Your task to perform on an android device: Open calendar and show me the second week of next month Image 0: 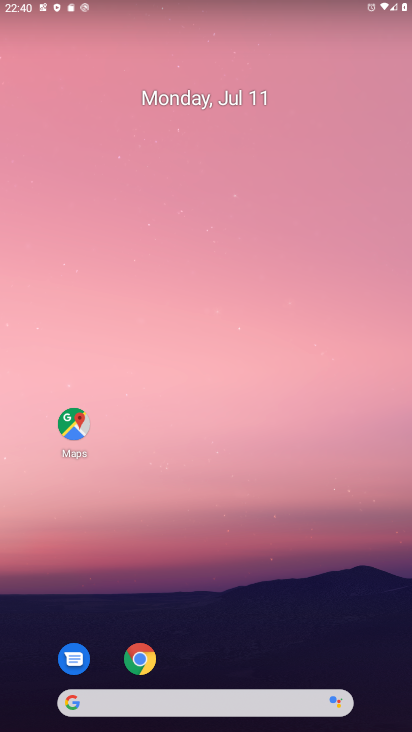
Step 0: drag from (204, 632) to (296, 189)
Your task to perform on an android device: Open calendar and show me the second week of next month Image 1: 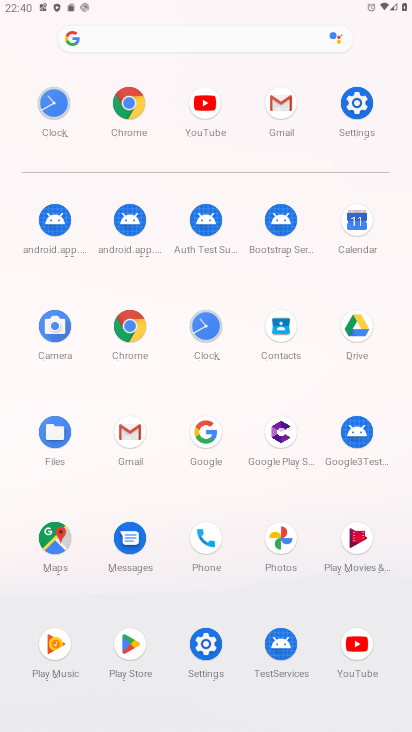
Step 1: click (357, 214)
Your task to perform on an android device: Open calendar and show me the second week of next month Image 2: 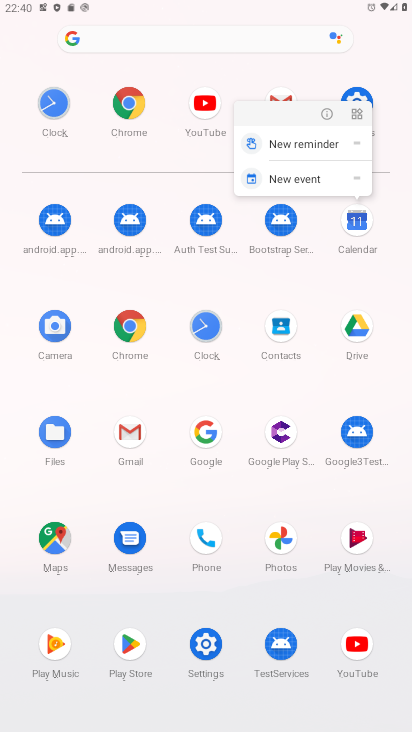
Step 2: click (336, 121)
Your task to perform on an android device: Open calendar and show me the second week of next month Image 3: 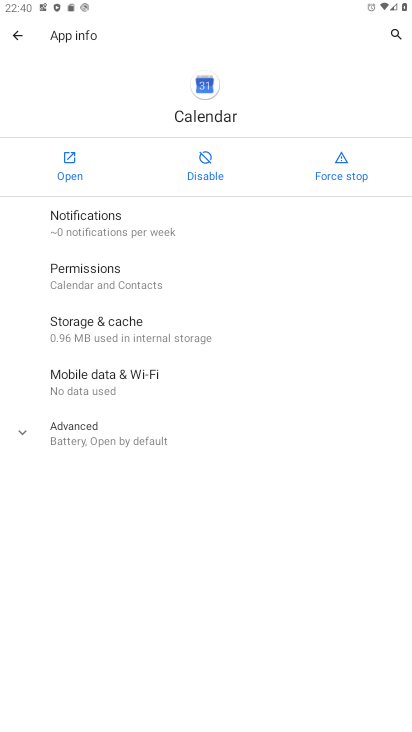
Step 3: click (73, 155)
Your task to perform on an android device: Open calendar and show me the second week of next month Image 4: 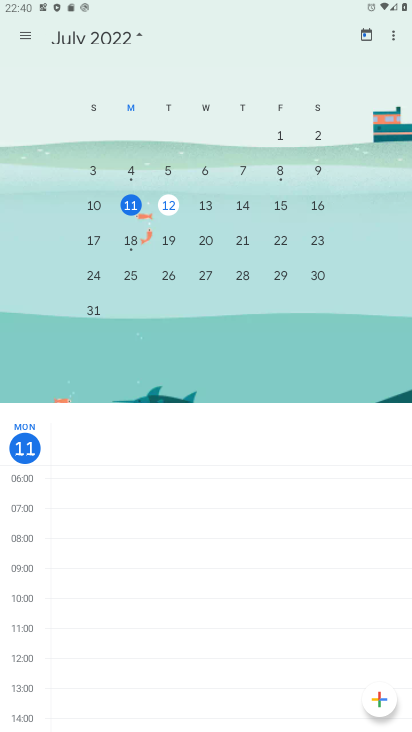
Step 4: click (311, 203)
Your task to perform on an android device: Open calendar and show me the second week of next month Image 5: 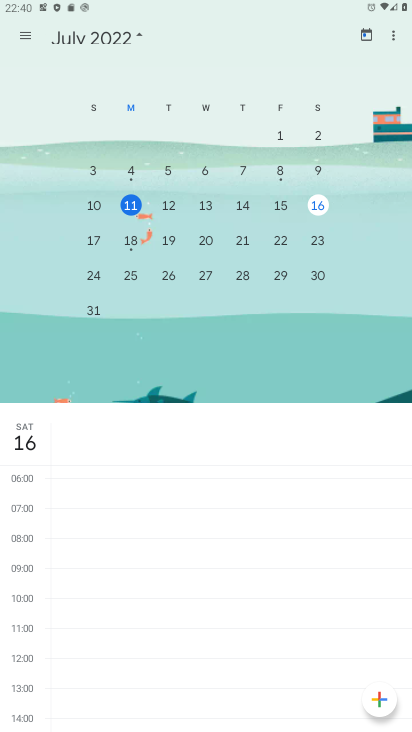
Step 5: click (319, 205)
Your task to perform on an android device: Open calendar and show me the second week of next month Image 6: 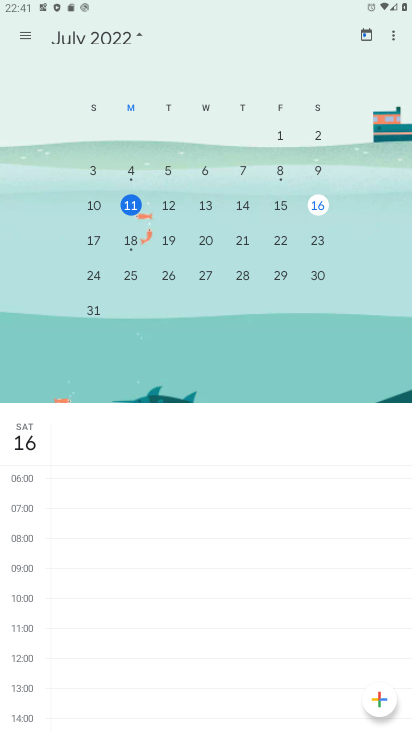
Step 6: click (321, 207)
Your task to perform on an android device: Open calendar and show me the second week of next month Image 7: 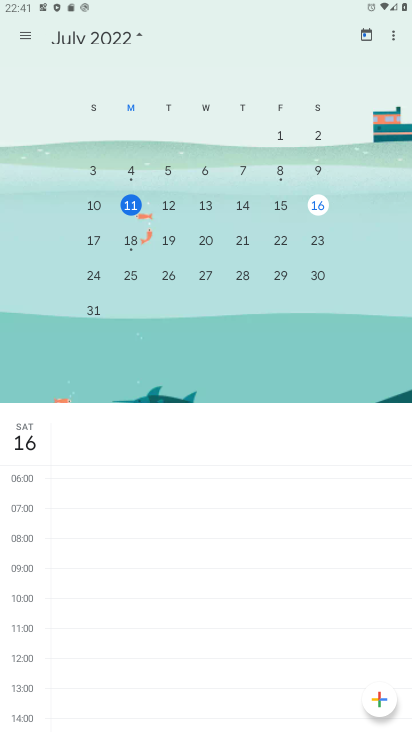
Step 7: drag from (195, 533) to (207, 372)
Your task to perform on an android device: Open calendar and show me the second week of next month Image 8: 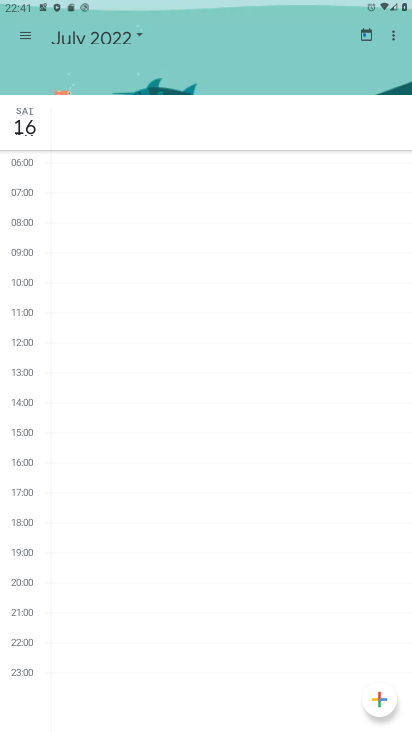
Step 8: drag from (207, 585) to (323, 53)
Your task to perform on an android device: Open calendar and show me the second week of next month Image 9: 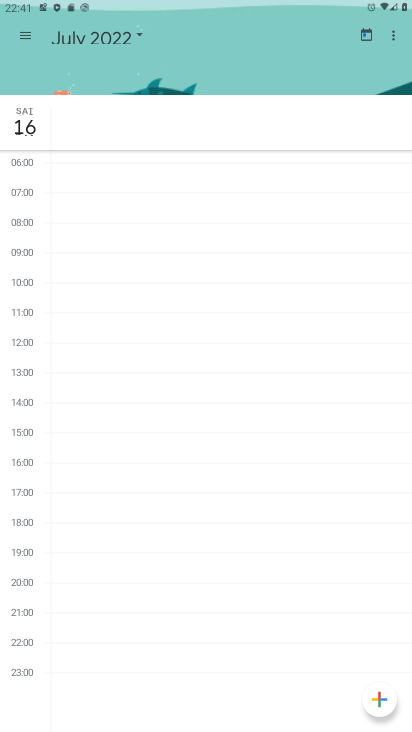
Step 9: click (99, 41)
Your task to perform on an android device: Open calendar and show me the second week of next month Image 10: 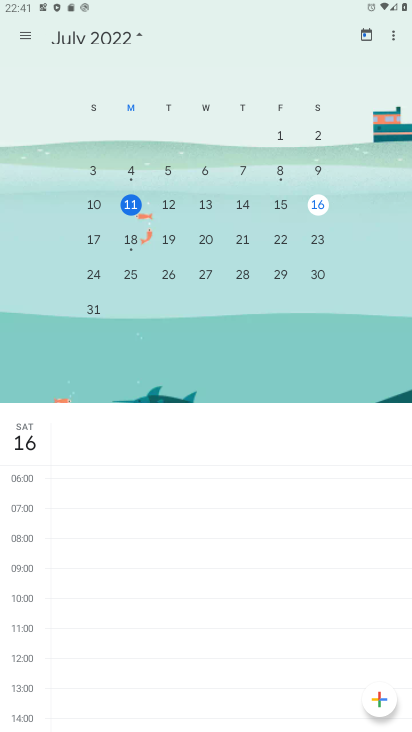
Step 10: drag from (282, 197) to (36, 206)
Your task to perform on an android device: Open calendar and show me the second week of next month Image 11: 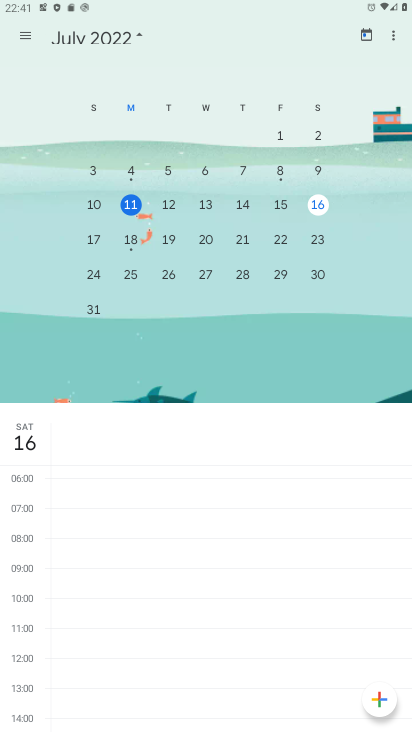
Step 11: click (280, 172)
Your task to perform on an android device: Open calendar and show me the second week of next month Image 12: 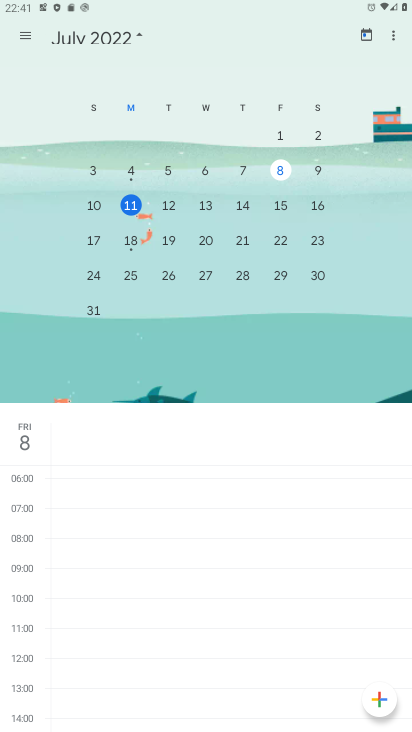
Step 12: task complete